Your task to perform on an android device: Go to sound settings Image 0: 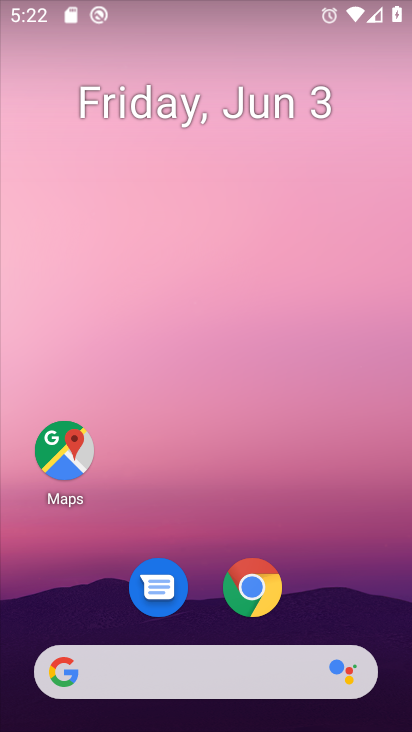
Step 0: drag from (154, 685) to (134, 73)
Your task to perform on an android device: Go to sound settings Image 1: 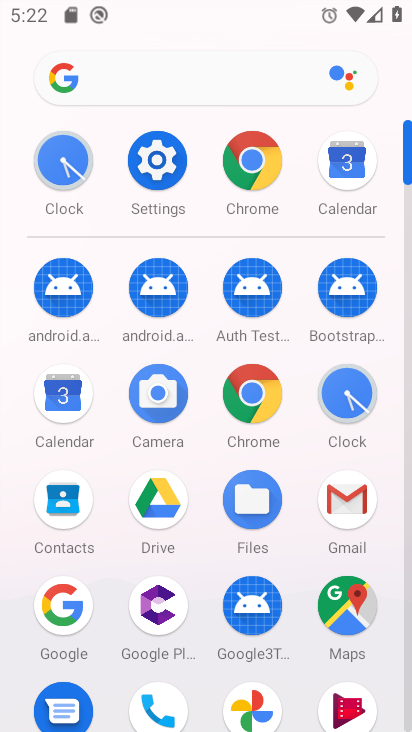
Step 1: click (159, 163)
Your task to perform on an android device: Go to sound settings Image 2: 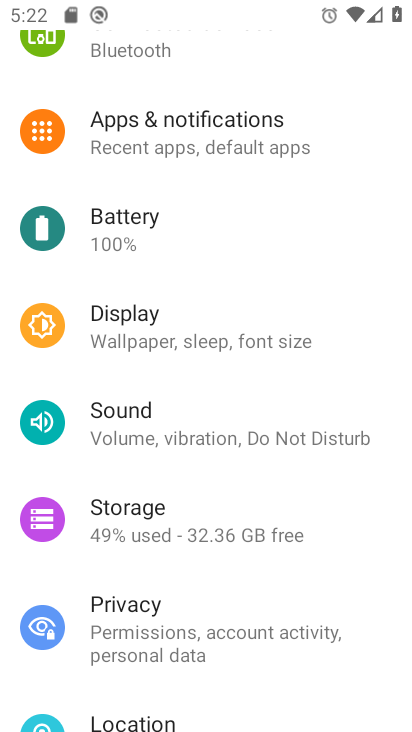
Step 2: click (106, 431)
Your task to perform on an android device: Go to sound settings Image 3: 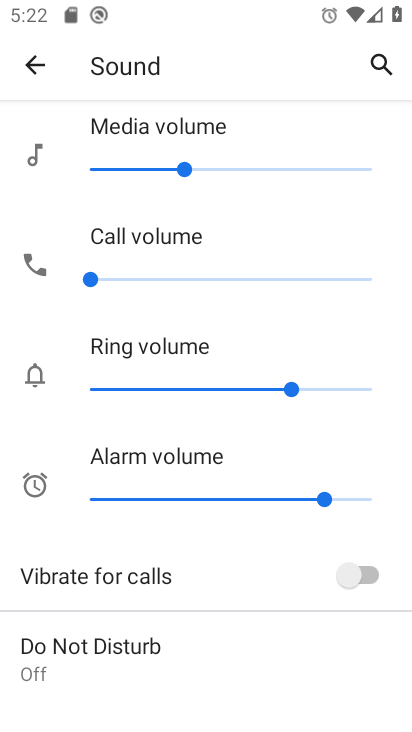
Step 3: task complete